Your task to perform on an android device: turn on wifi Image 0: 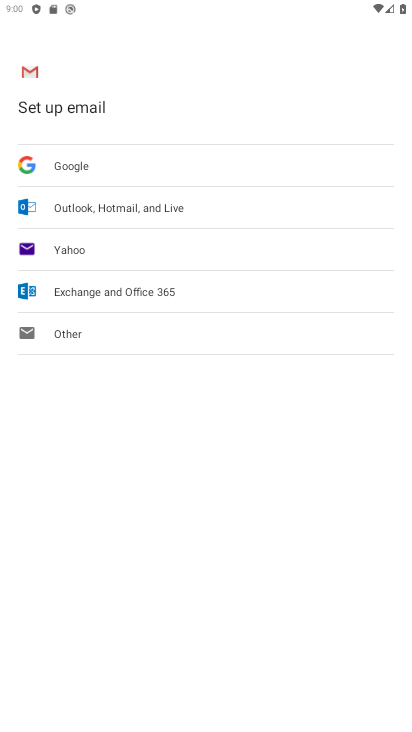
Step 0: press home button
Your task to perform on an android device: turn on wifi Image 1: 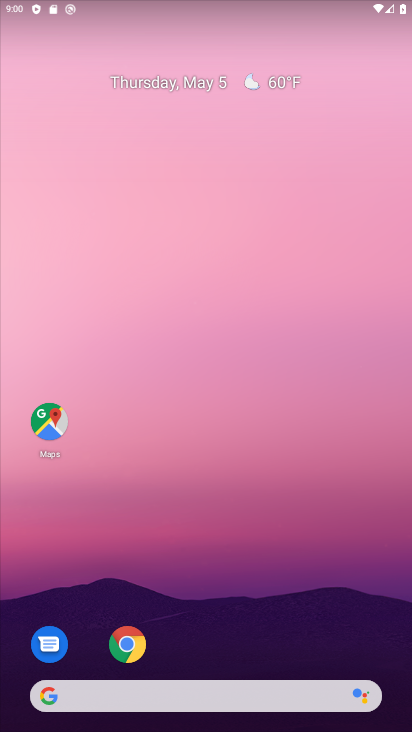
Step 1: drag from (205, 578) to (264, 120)
Your task to perform on an android device: turn on wifi Image 2: 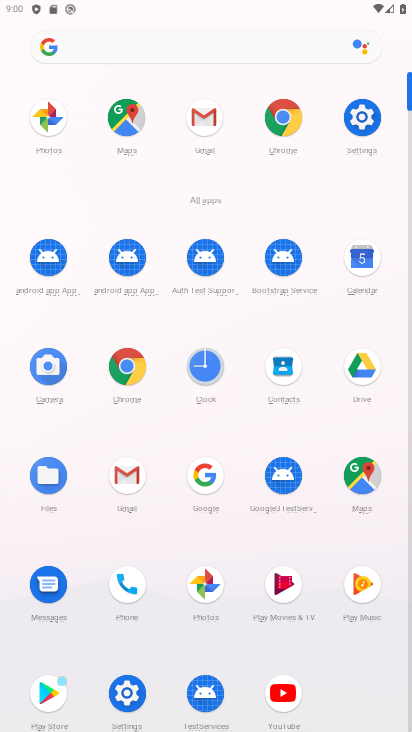
Step 2: click (354, 123)
Your task to perform on an android device: turn on wifi Image 3: 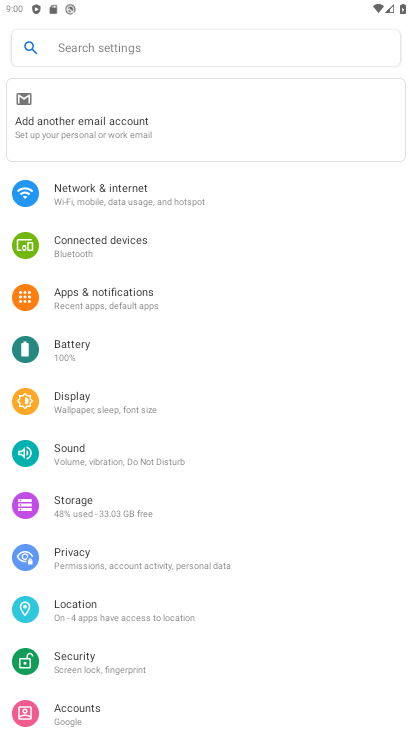
Step 3: click (112, 193)
Your task to perform on an android device: turn on wifi Image 4: 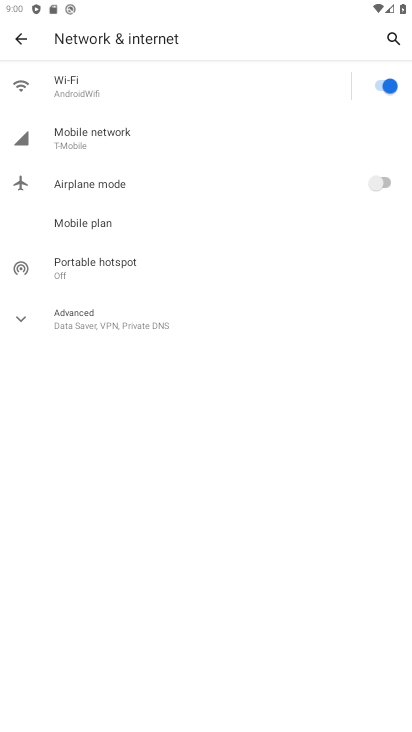
Step 4: task complete